Your task to perform on an android device: refresh tabs in the chrome app Image 0: 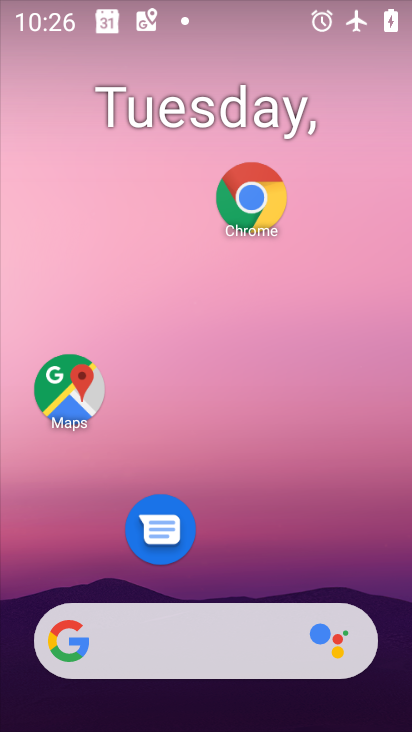
Step 0: click (267, 223)
Your task to perform on an android device: refresh tabs in the chrome app Image 1: 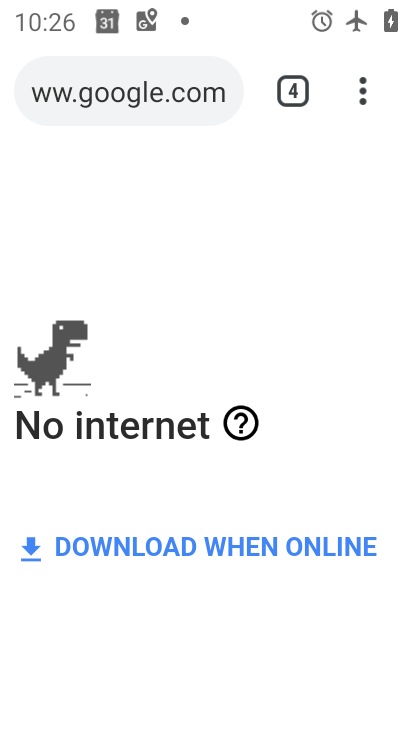
Step 1: click (363, 104)
Your task to perform on an android device: refresh tabs in the chrome app Image 2: 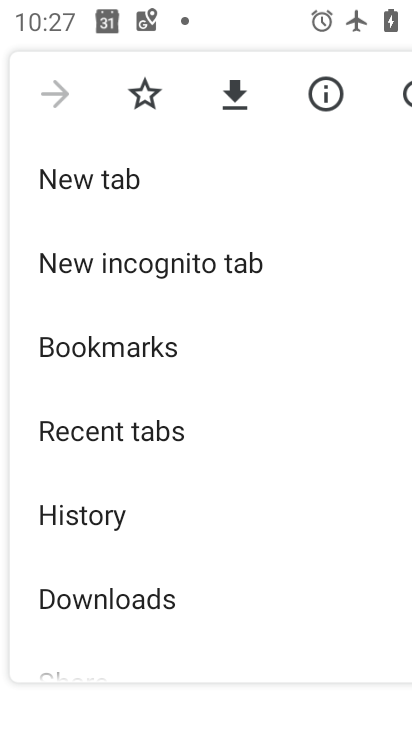
Step 2: click (402, 102)
Your task to perform on an android device: refresh tabs in the chrome app Image 3: 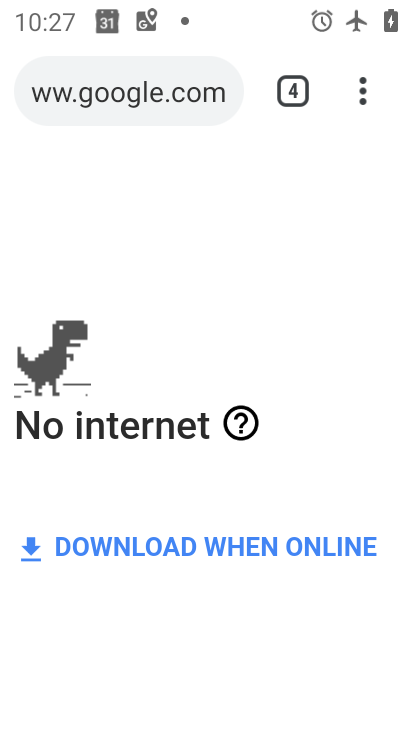
Step 3: task complete